Your task to perform on an android device: Open Chrome and go to settings Image 0: 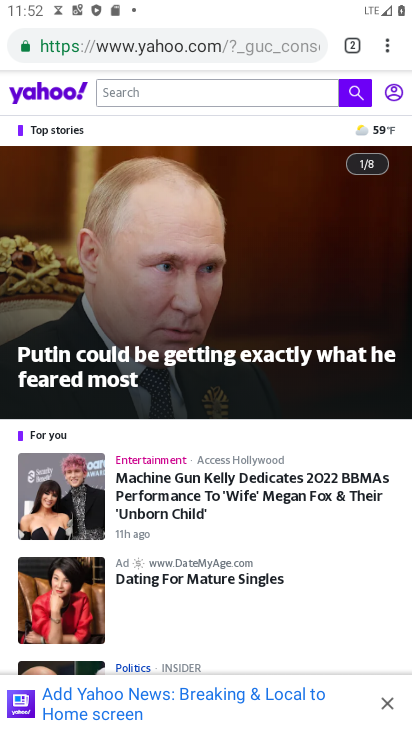
Step 0: press home button
Your task to perform on an android device: Open Chrome and go to settings Image 1: 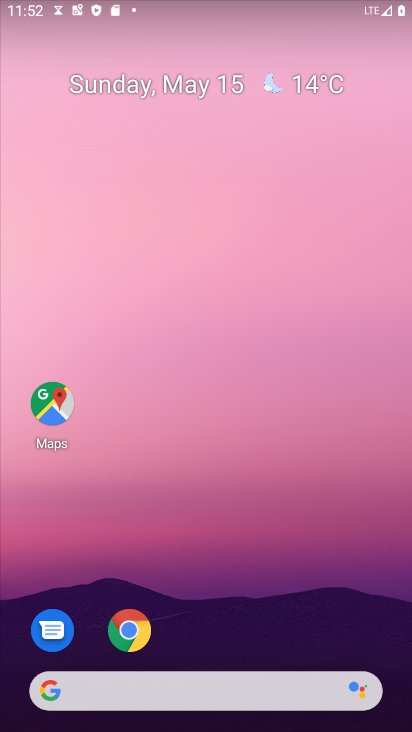
Step 1: click (118, 635)
Your task to perform on an android device: Open Chrome and go to settings Image 2: 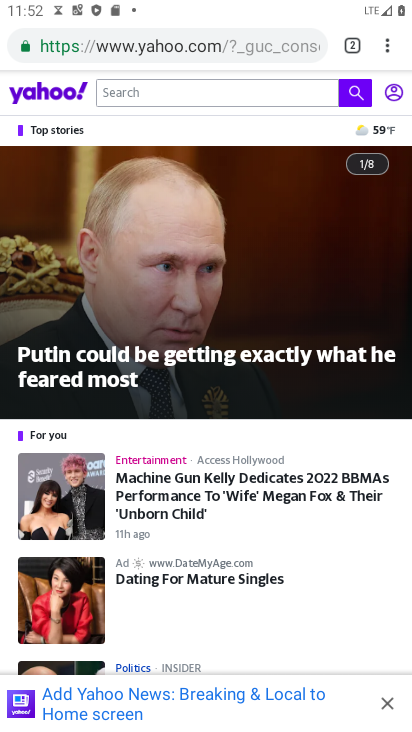
Step 2: click (381, 43)
Your task to perform on an android device: Open Chrome and go to settings Image 3: 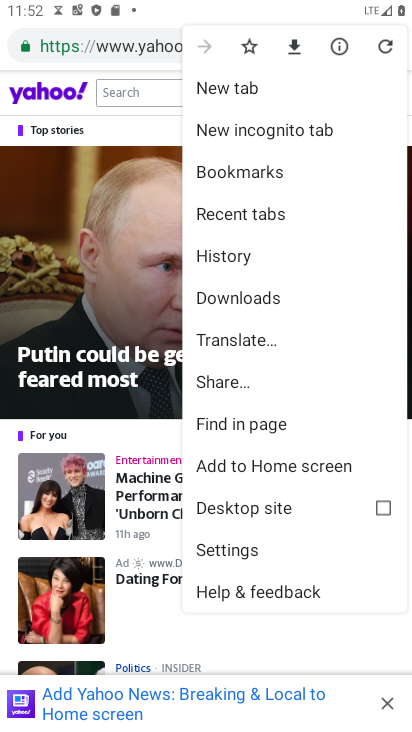
Step 3: click (251, 542)
Your task to perform on an android device: Open Chrome and go to settings Image 4: 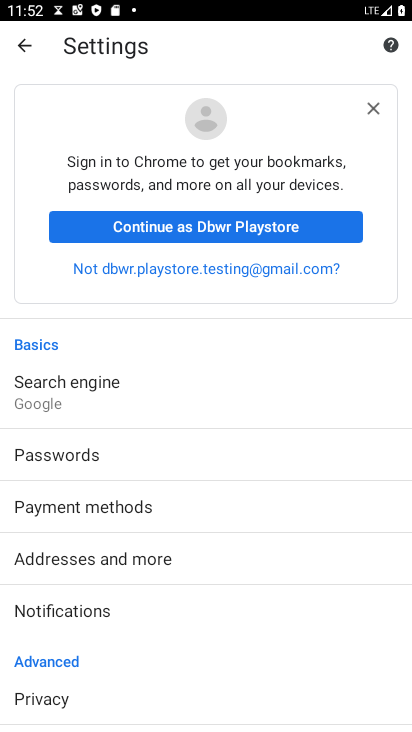
Step 4: task complete